Your task to perform on an android device: Go to sound settings Image 0: 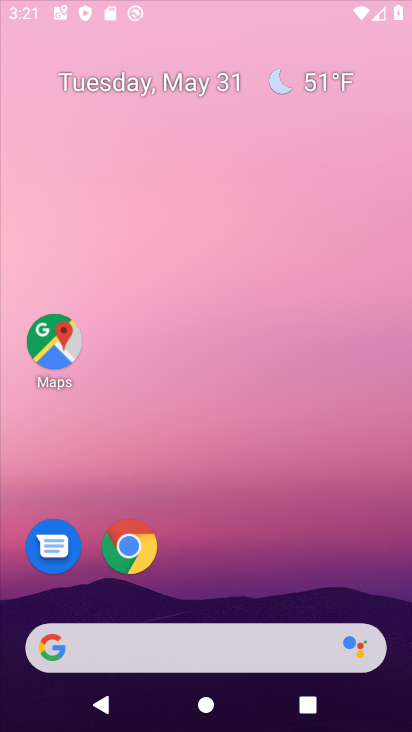
Step 0: press home button
Your task to perform on an android device: Go to sound settings Image 1: 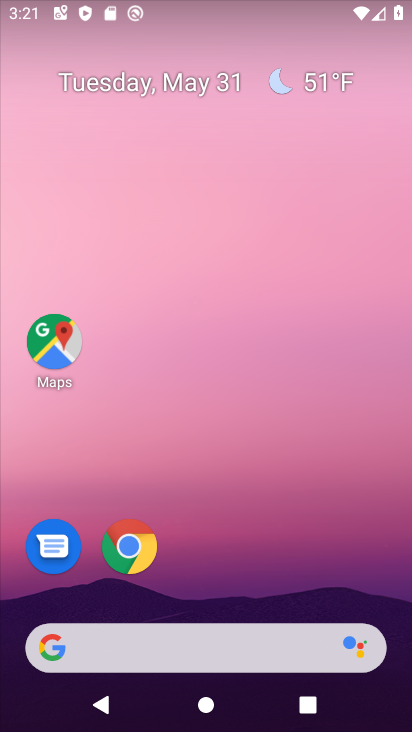
Step 1: drag from (231, 560) to (222, 331)
Your task to perform on an android device: Go to sound settings Image 2: 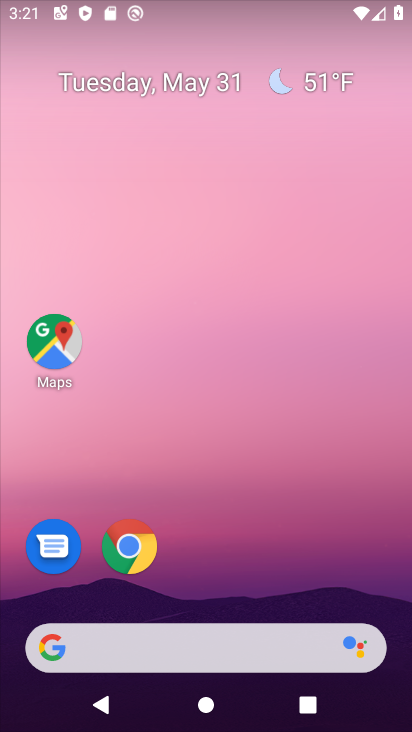
Step 2: drag from (186, 592) to (181, 298)
Your task to perform on an android device: Go to sound settings Image 3: 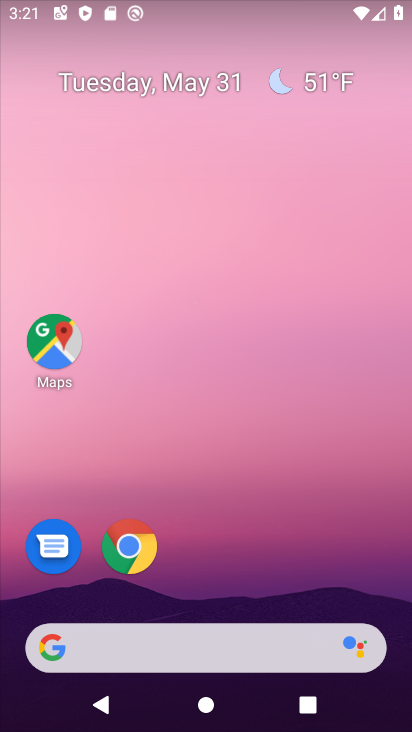
Step 3: drag from (216, 597) to (229, 286)
Your task to perform on an android device: Go to sound settings Image 4: 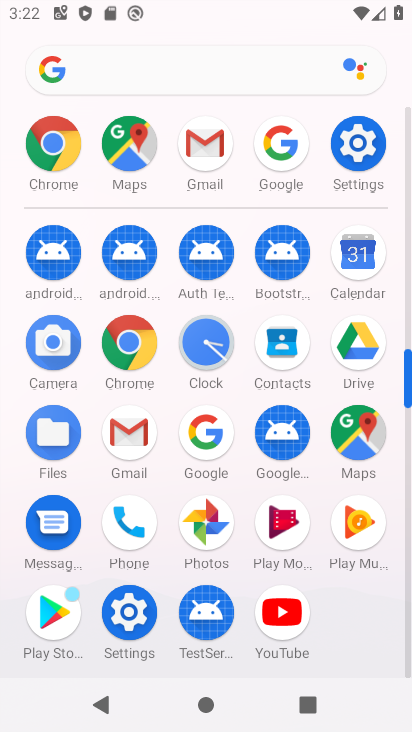
Step 4: click (358, 150)
Your task to perform on an android device: Go to sound settings Image 5: 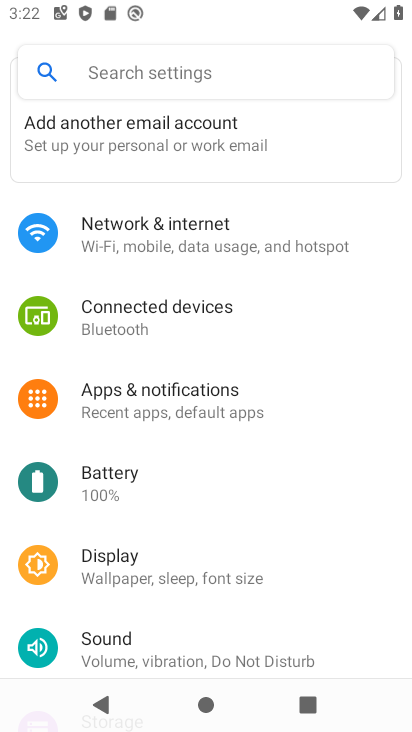
Step 5: click (111, 649)
Your task to perform on an android device: Go to sound settings Image 6: 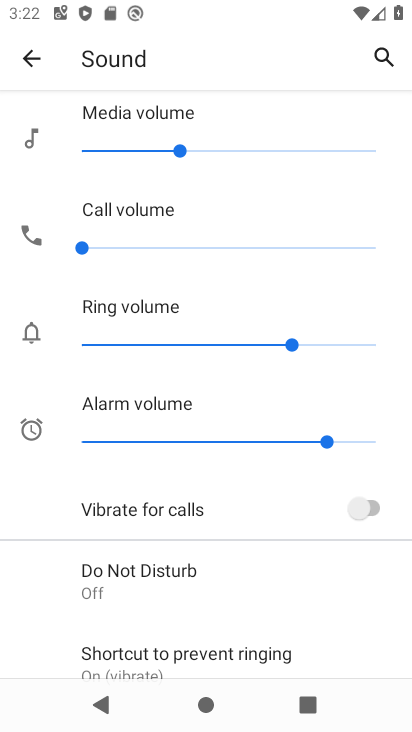
Step 6: task complete